Your task to perform on an android device: open the mobile data screen to see how much data has been used Image 0: 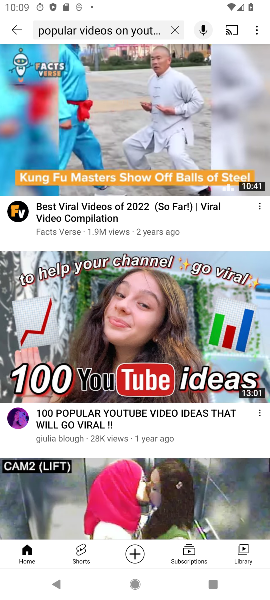
Step 0: press home button
Your task to perform on an android device: open the mobile data screen to see how much data has been used Image 1: 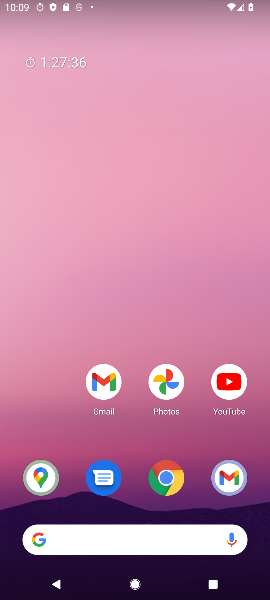
Step 1: drag from (163, 2) to (68, 507)
Your task to perform on an android device: open the mobile data screen to see how much data has been used Image 2: 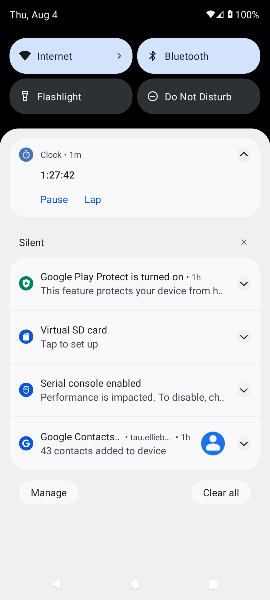
Step 2: drag from (136, 85) to (65, 470)
Your task to perform on an android device: open the mobile data screen to see how much data has been used Image 3: 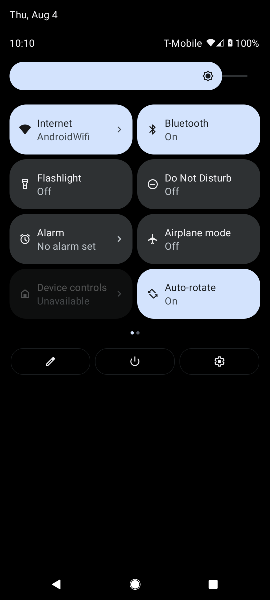
Step 3: click (65, 128)
Your task to perform on an android device: open the mobile data screen to see how much data has been used Image 4: 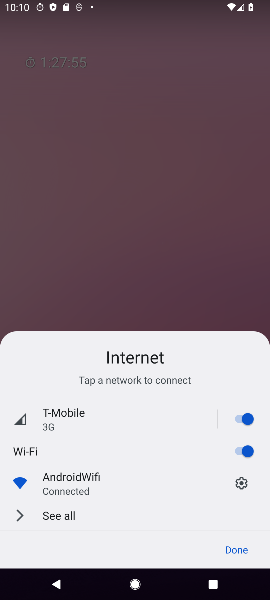
Step 4: click (230, 550)
Your task to perform on an android device: open the mobile data screen to see how much data has been used Image 5: 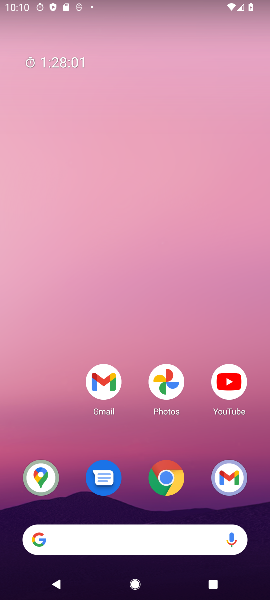
Step 5: task complete